Your task to perform on an android device: open app "Messenger Lite" (install if not already installed) and enter user name: "cataclysmic@outlook.com" and password: "victoriously" Image 0: 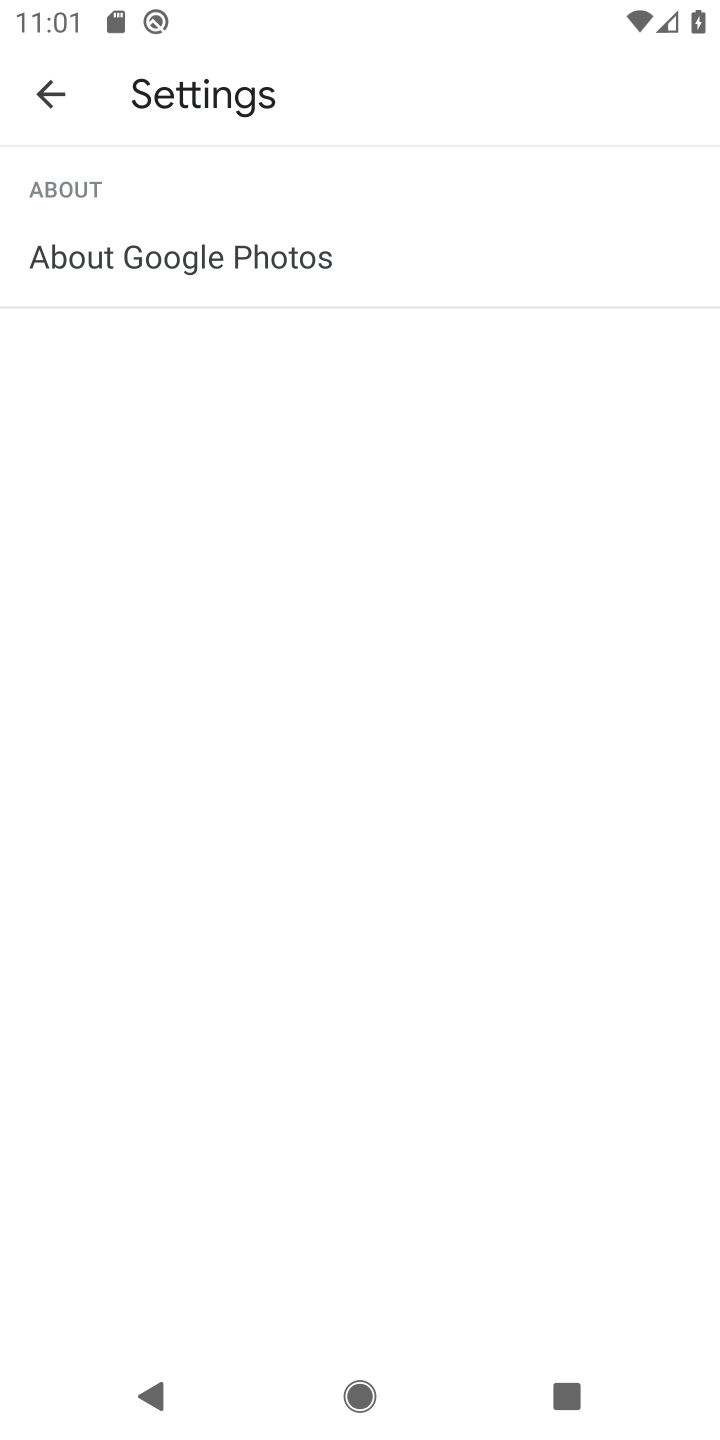
Step 0: press home button
Your task to perform on an android device: open app "Messenger Lite" (install if not already installed) and enter user name: "cataclysmic@outlook.com" and password: "victoriously" Image 1: 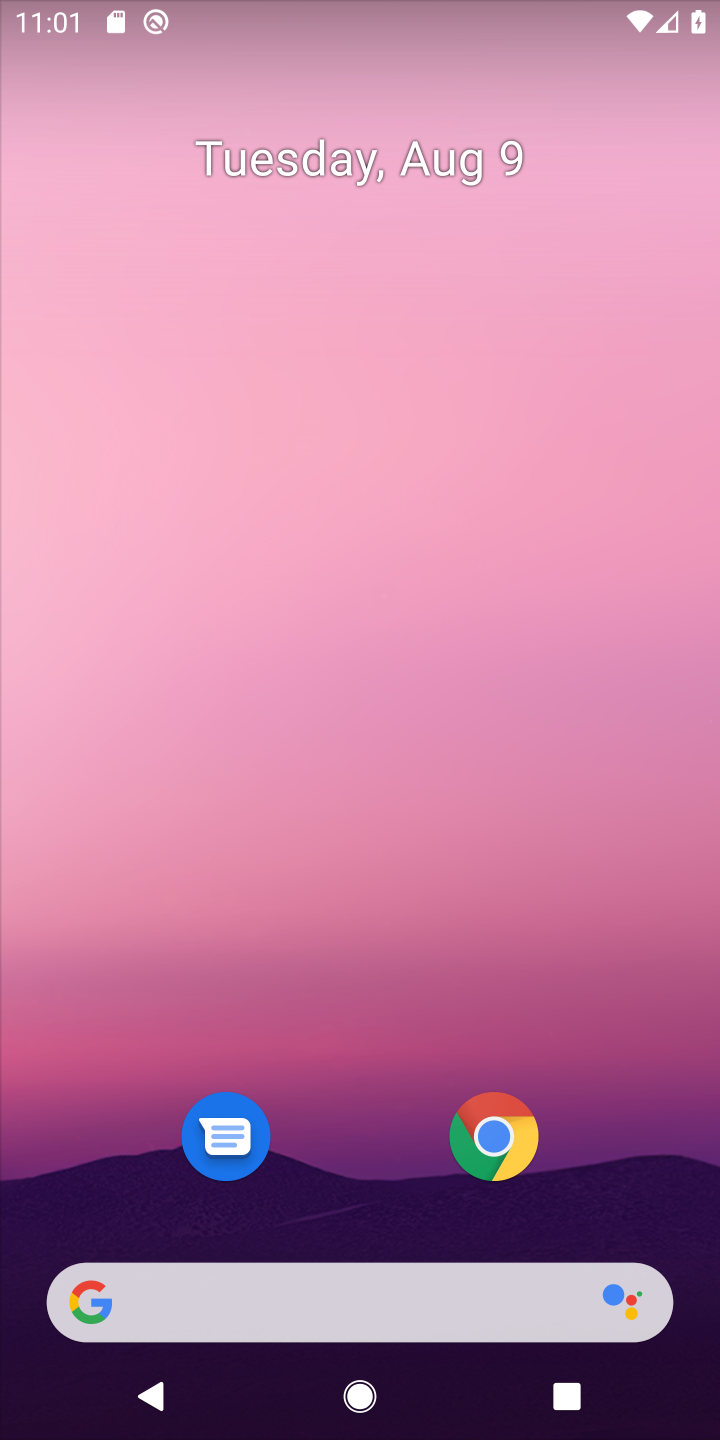
Step 1: drag from (321, 1199) to (346, 527)
Your task to perform on an android device: open app "Messenger Lite" (install if not already installed) and enter user name: "cataclysmic@outlook.com" and password: "victoriously" Image 2: 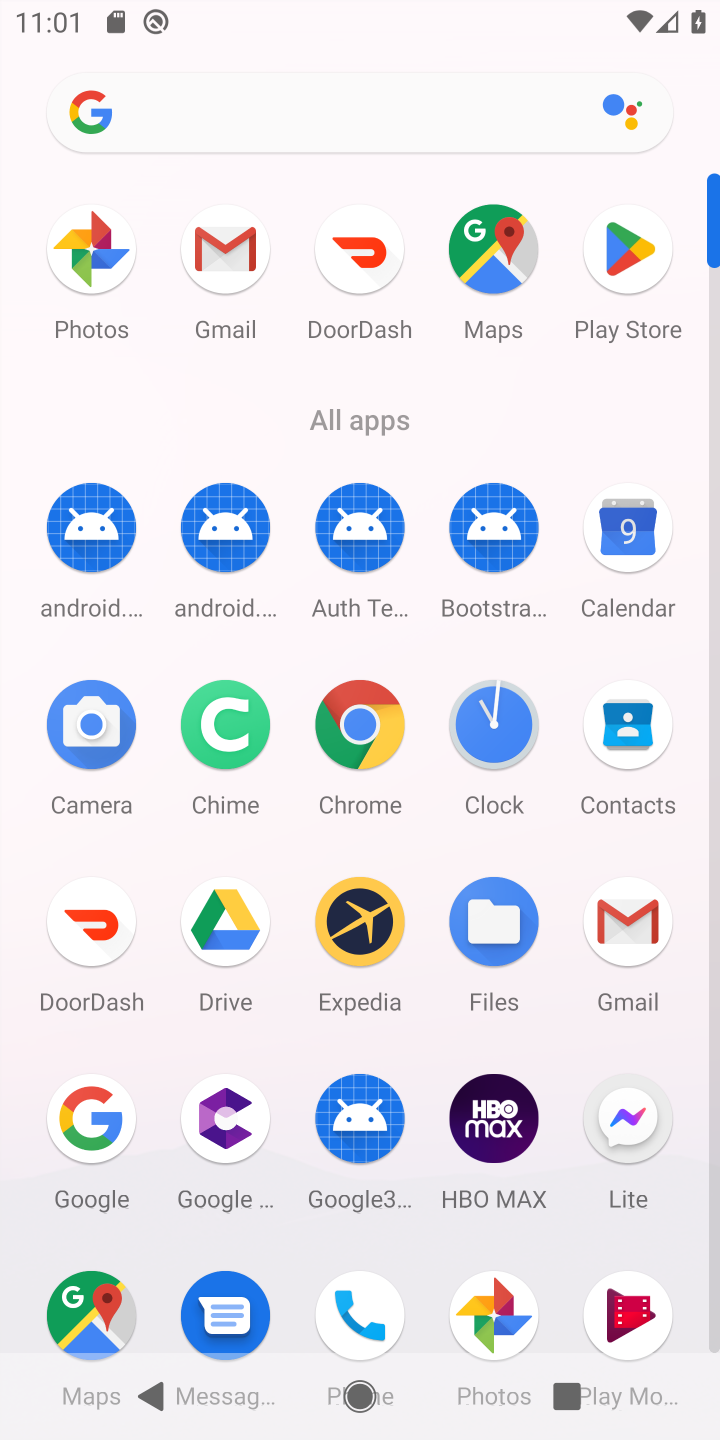
Step 2: click (652, 284)
Your task to perform on an android device: open app "Messenger Lite" (install if not already installed) and enter user name: "cataclysmic@outlook.com" and password: "victoriously" Image 3: 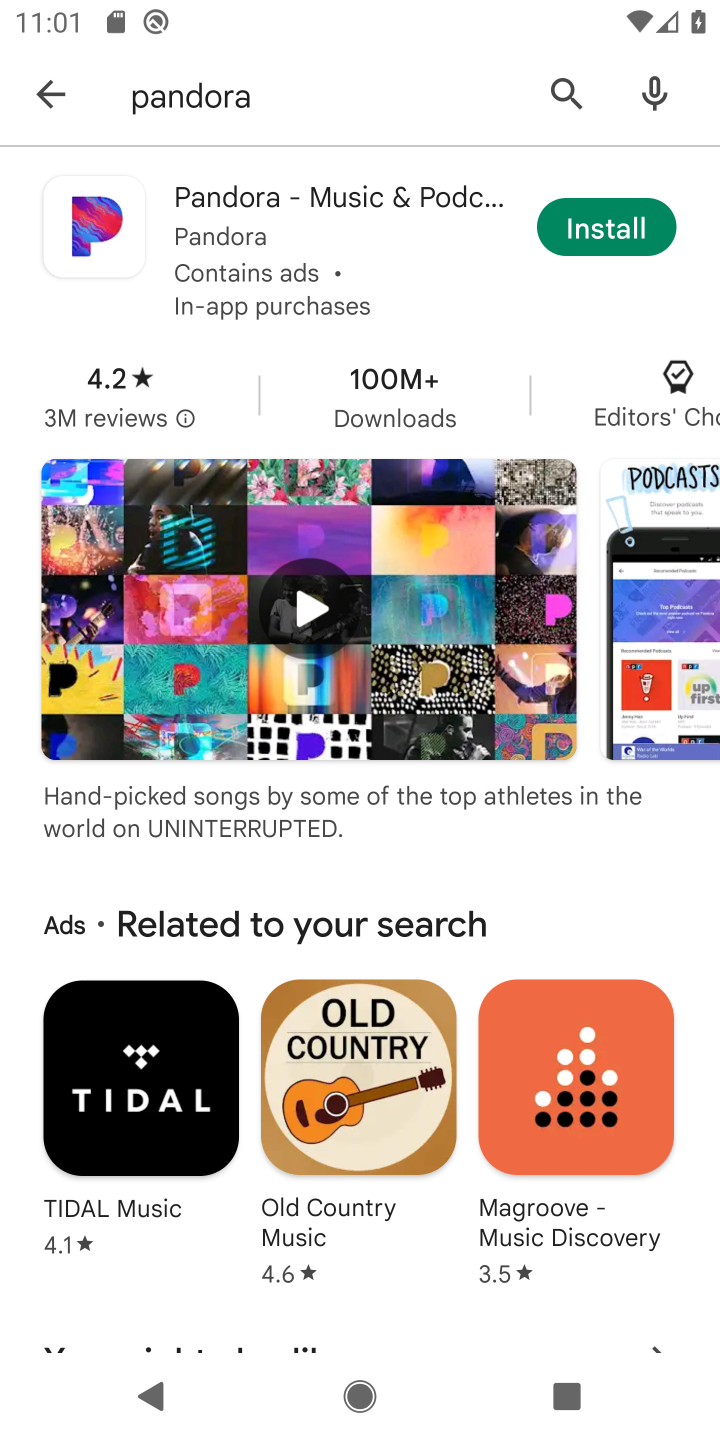
Step 3: click (283, 110)
Your task to perform on an android device: open app "Messenger Lite" (install if not already installed) and enter user name: "cataclysmic@outlook.com" and password: "victoriously" Image 4: 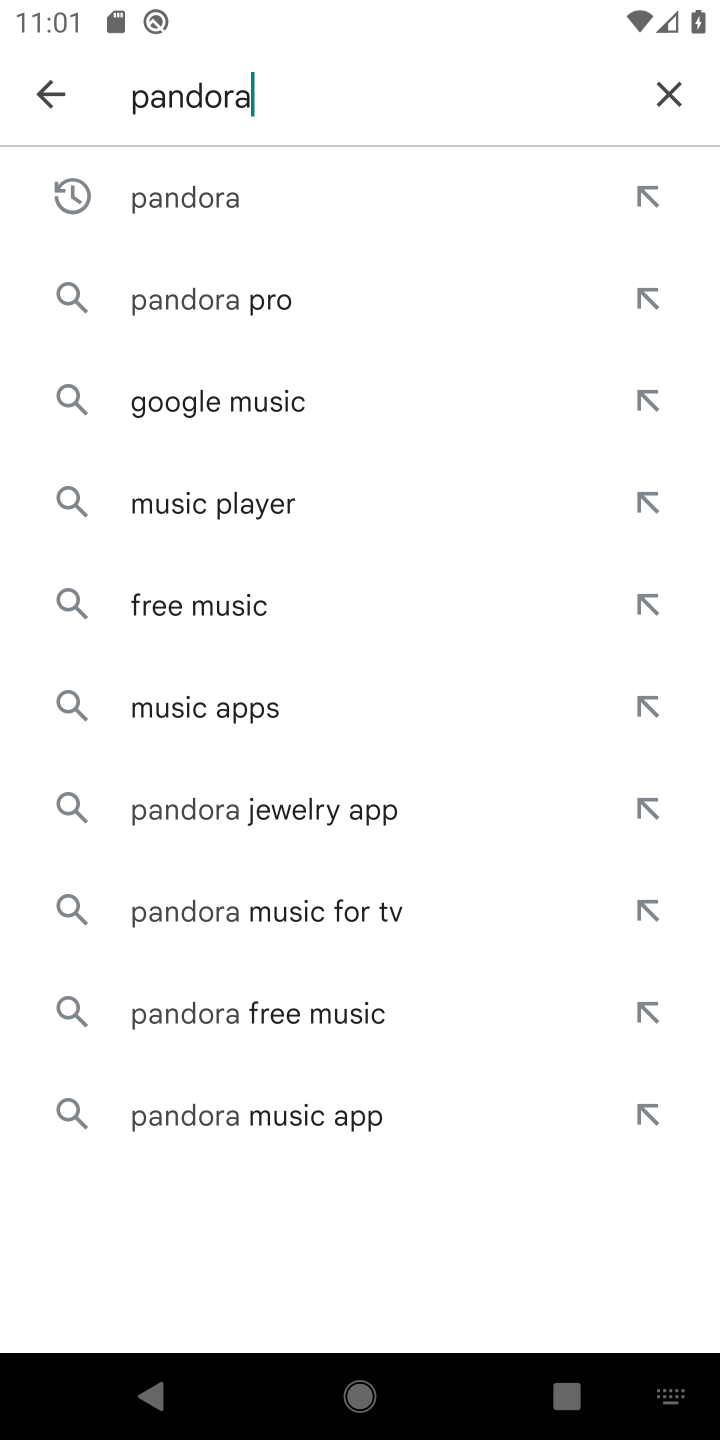
Step 4: click (663, 100)
Your task to perform on an android device: open app "Messenger Lite" (install if not already installed) and enter user name: "cataclysmic@outlook.com" and password: "victoriously" Image 5: 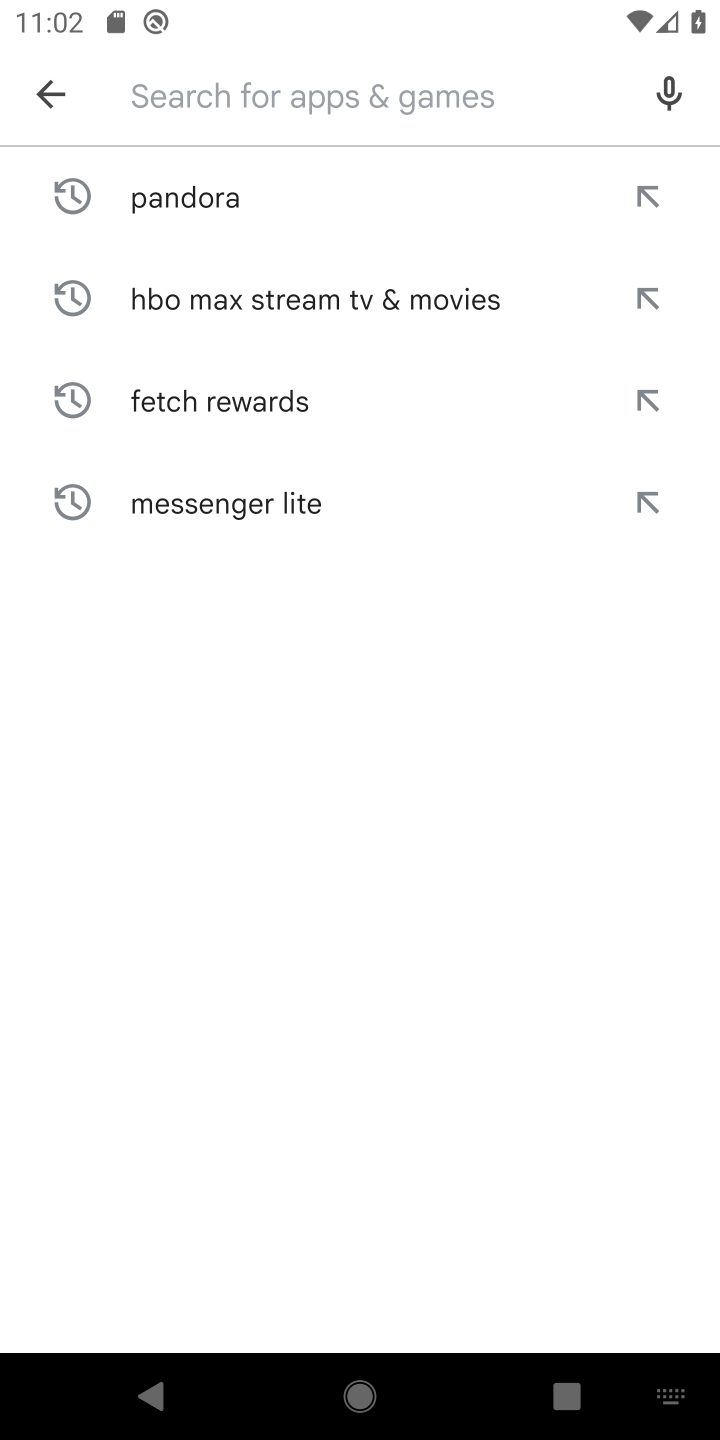
Step 5: type "messenger lite"
Your task to perform on an android device: open app "Messenger Lite" (install if not already installed) and enter user name: "cataclysmic@outlook.com" and password: "victoriously" Image 6: 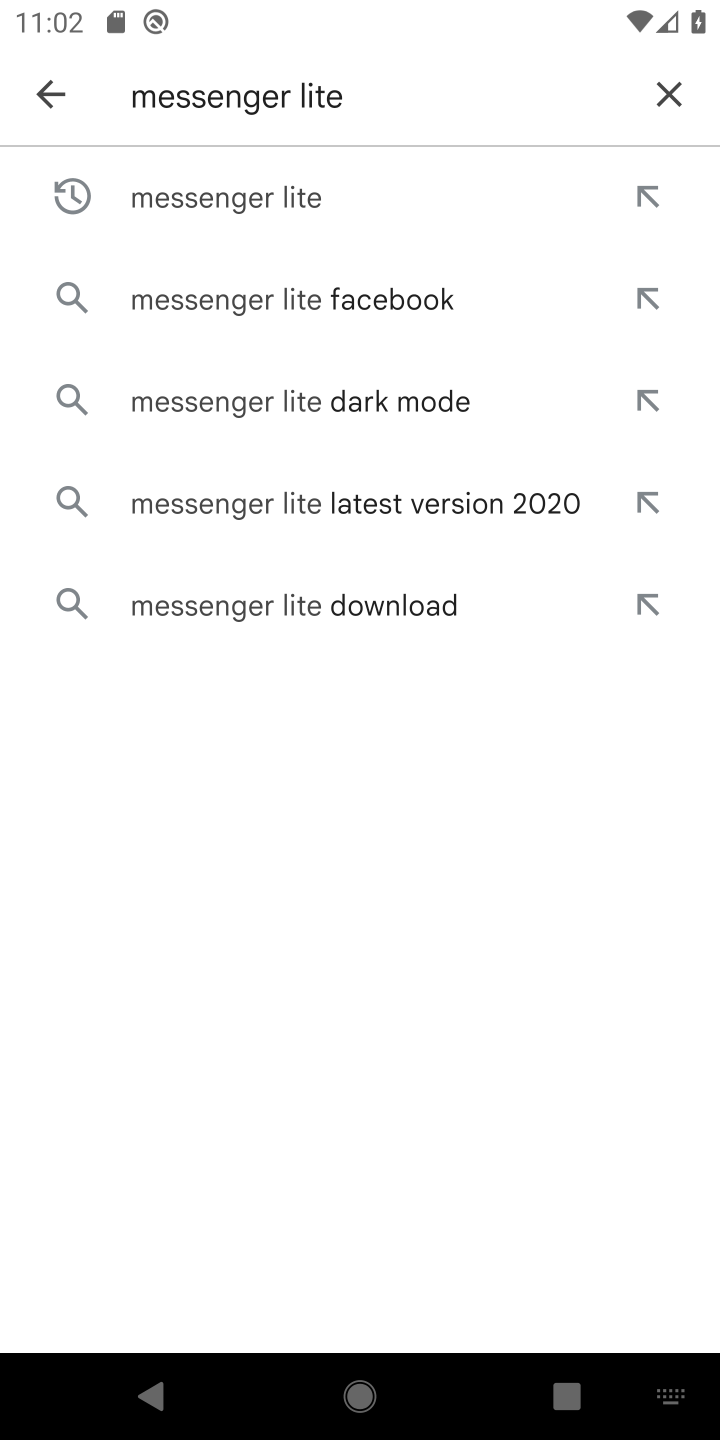
Step 6: click (213, 218)
Your task to perform on an android device: open app "Messenger Lite" (install if not already installed) and enter user name: "cataclysmic@outlook.com" and password: "victoriously" Image 7: 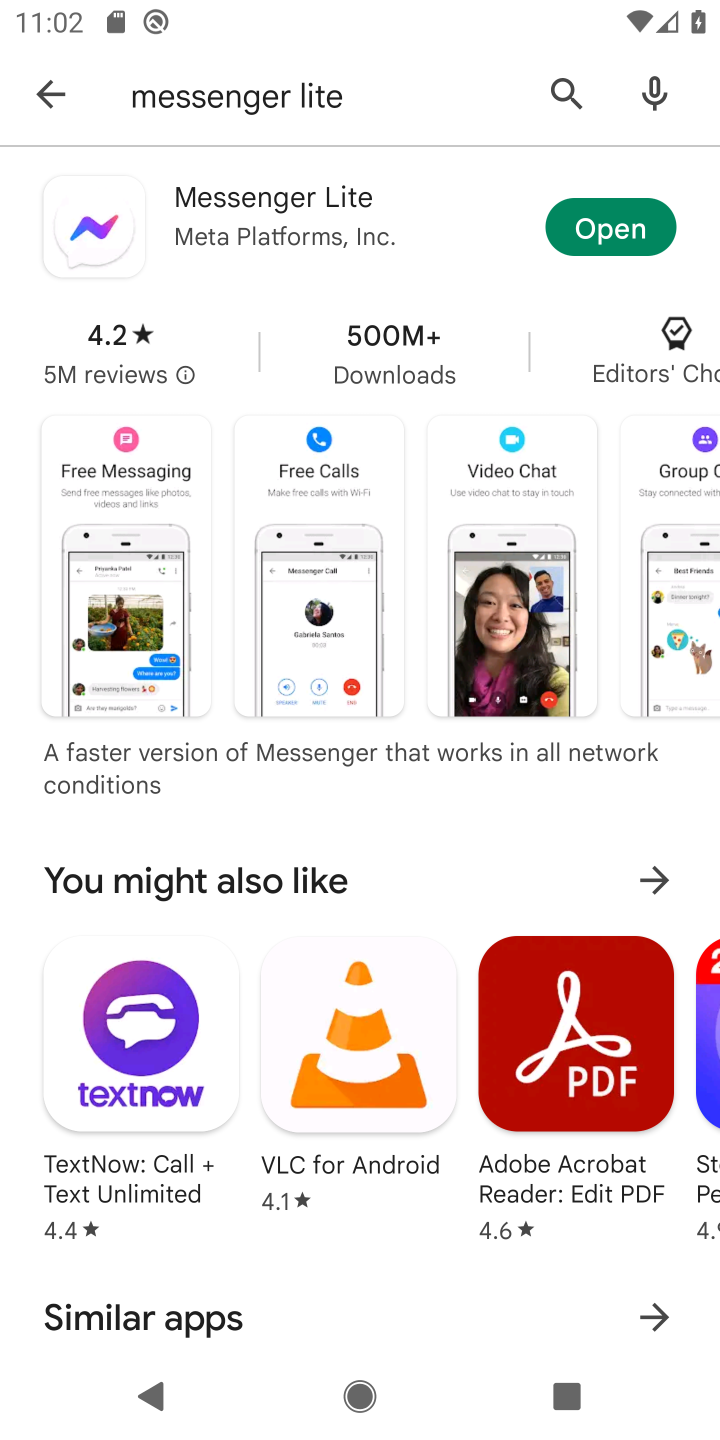
Step 7: click (611, 227)
Your task to perform on an android device: open app "Messenger Lite" (install if not already installed) and enter user name: "cataclysmic@outlook.com" and password: "victoriously" Image 8: 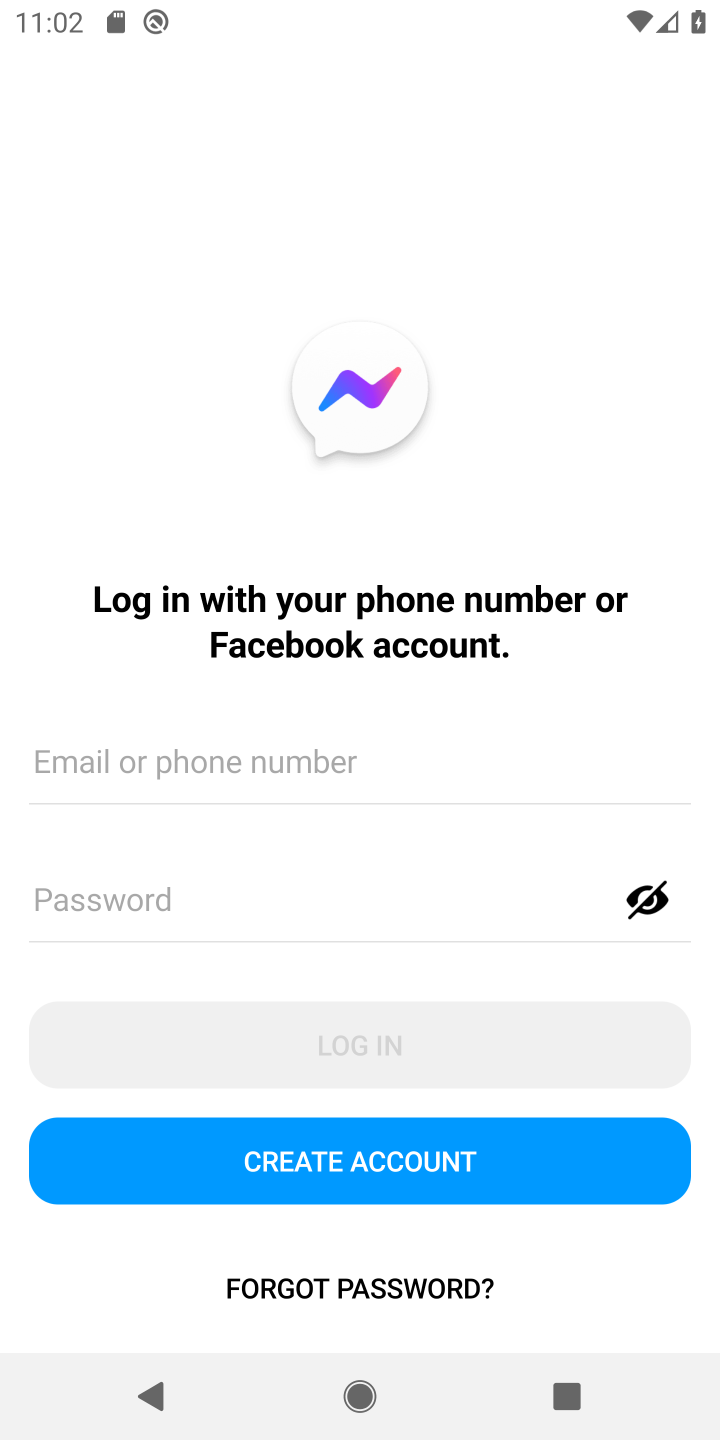
Step 8: click (312, 759)
Your task to perform on an android device: open app "Messenger Lite" (install if not already installed) and enter user name: "cataclysmic@outlook.com" and password: "victoriously" Image 9: 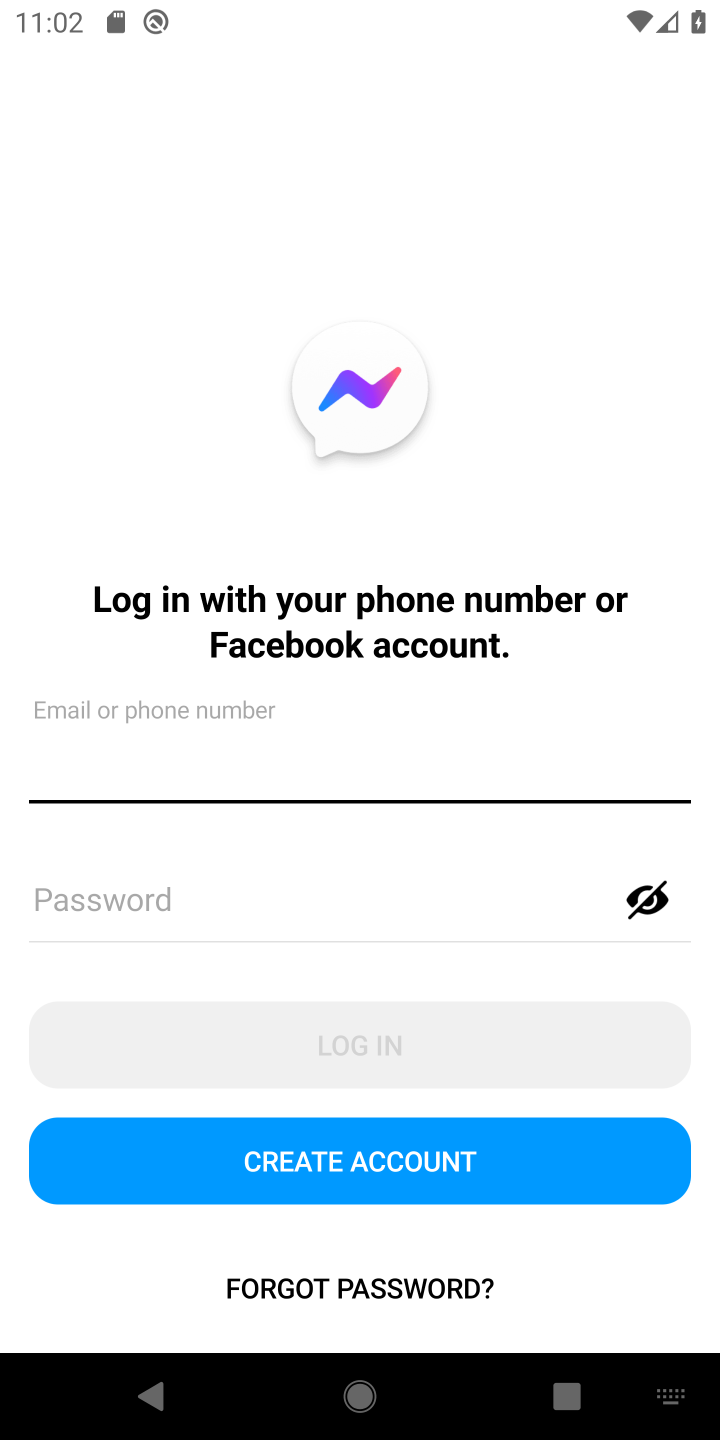
Step 9: type "cataclysmic@outlook.com"
Your task to perform on an android device: open app "Messenger Lite" (install if not already installed) and enter user name: "cataclysmic@outlook.com" and password: "victoriously" Image 10: 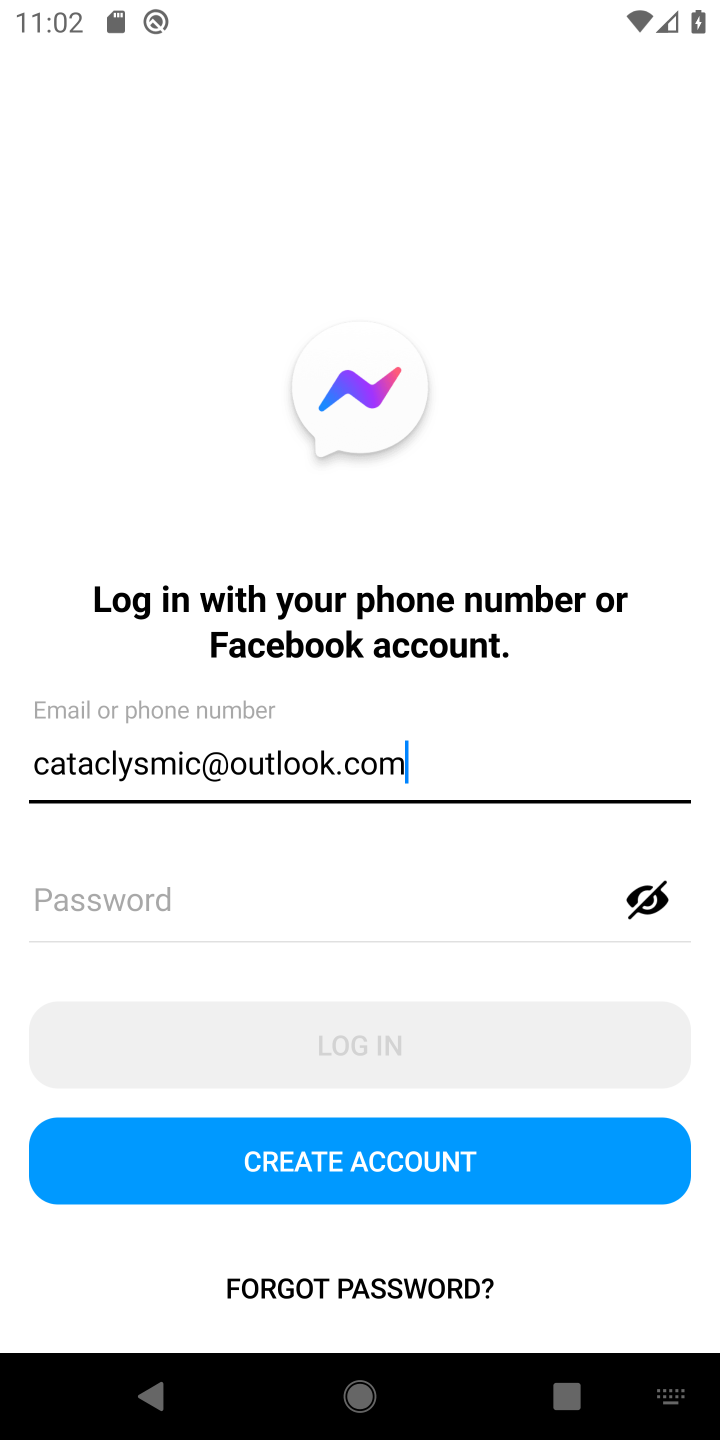
Step 10: click (244, 1028)
Your task to perform on an android device: open app "Messenger Lite" (install if not already installed) and enter user name: "cataclysmic@outlook.com" and password: "victoriously" Image 11: 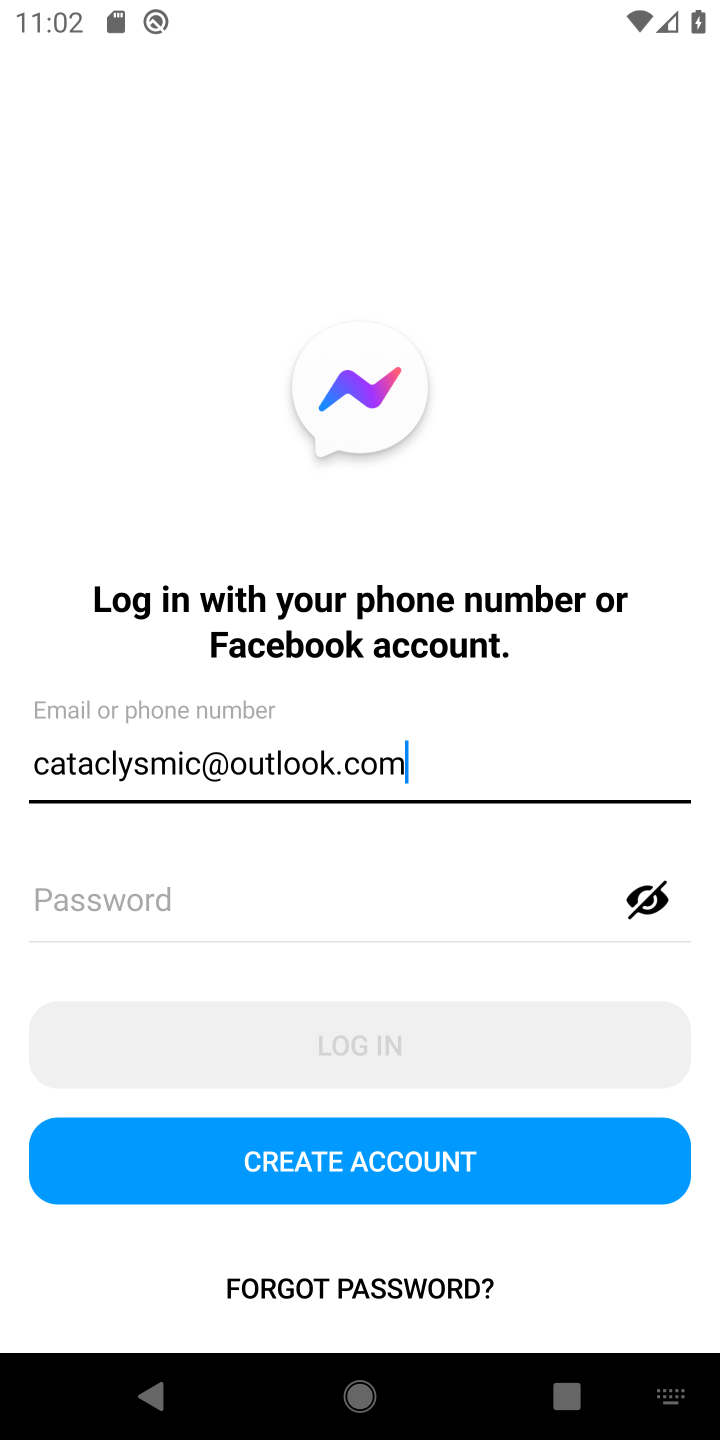
Step 11: click (213, 889)
Your task to perform on an android device: open app "Messenger Lite" (install if not already installed) and enter user name: "cataclysmic@outlook.com" and password: "victoriously" Image 12: 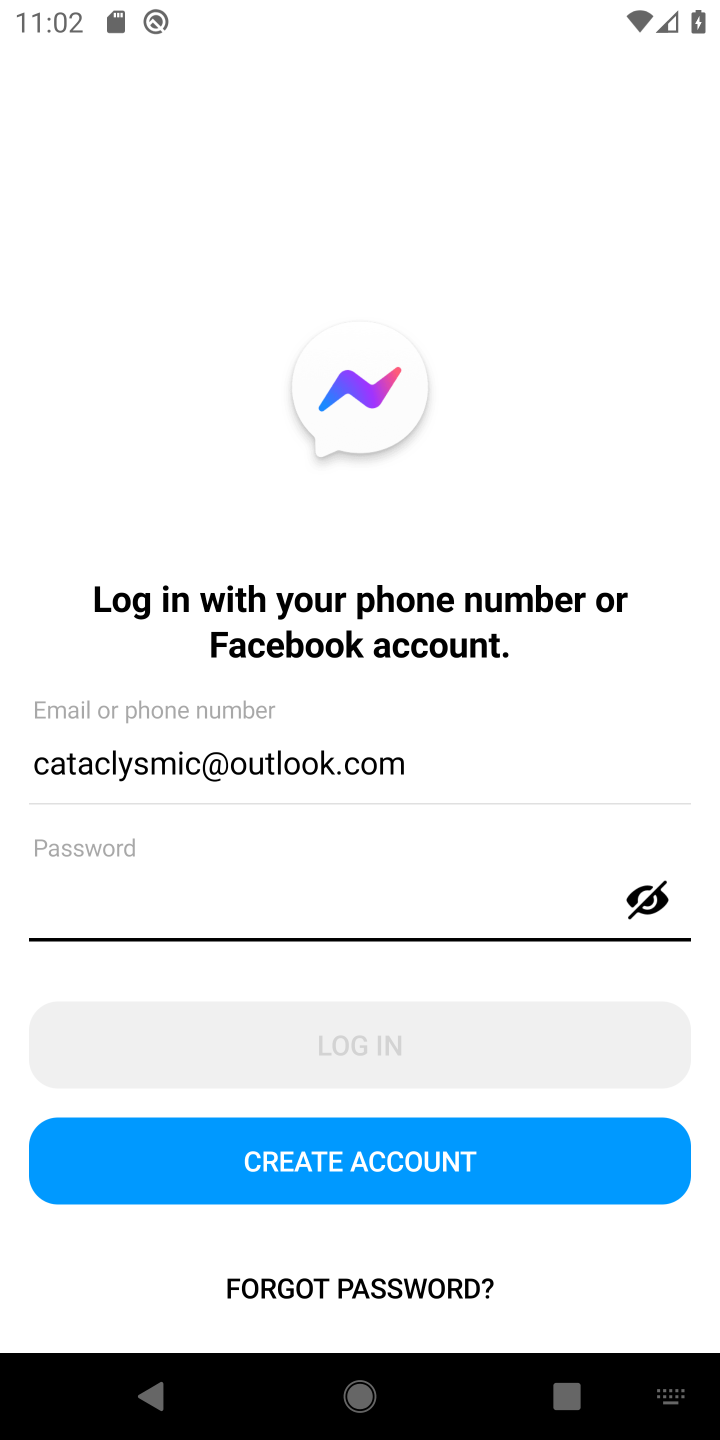
Step 12: type "victoriously"
Your task to perform on an android device: open app "Messenger Lite" (install if not already installed) and enter user name: "cataclysmic@outlook.com" and password: "victoriously" Image 13: 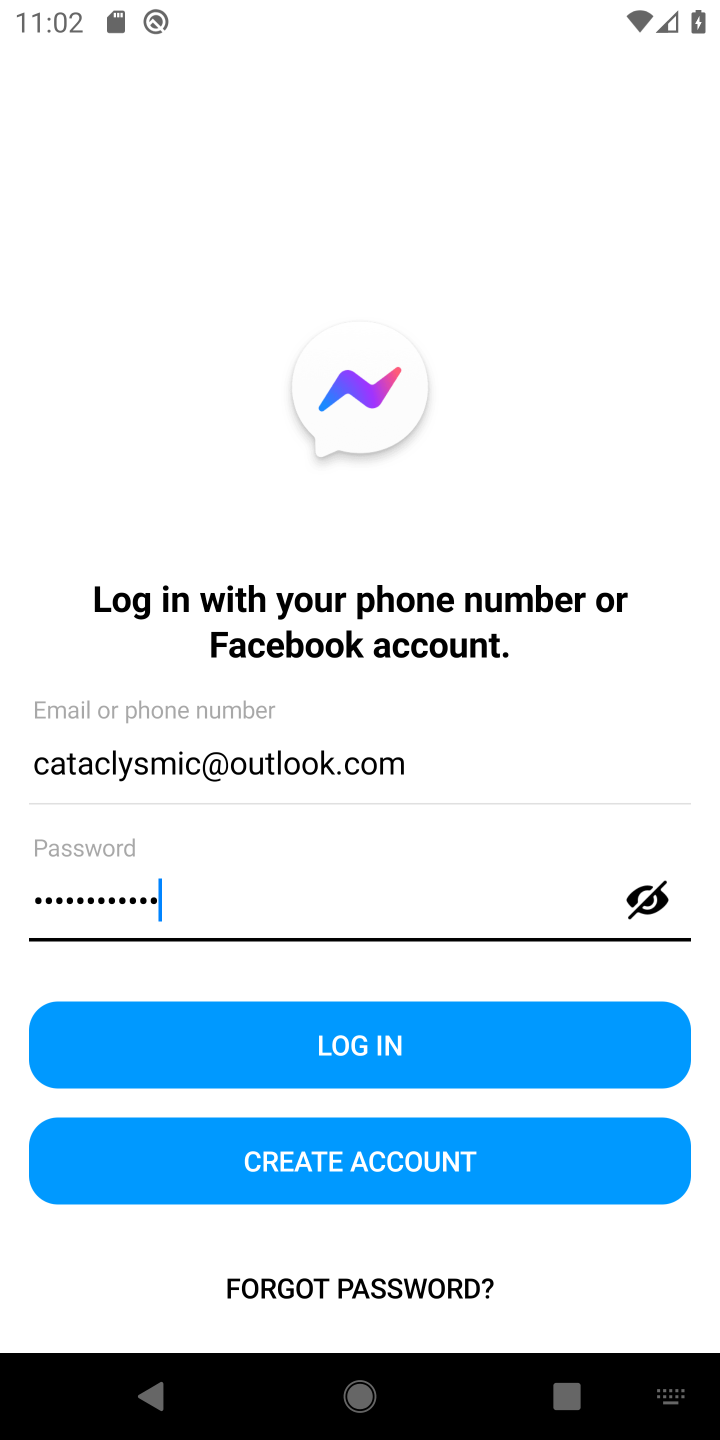
Step 13: click (476, 1038)
Your task to perform on an android device: open app "Messenger Lite" (install if not already installed) and enter user name: "cataclysmic@outlook.com" and password: "victoriously" Image 14: 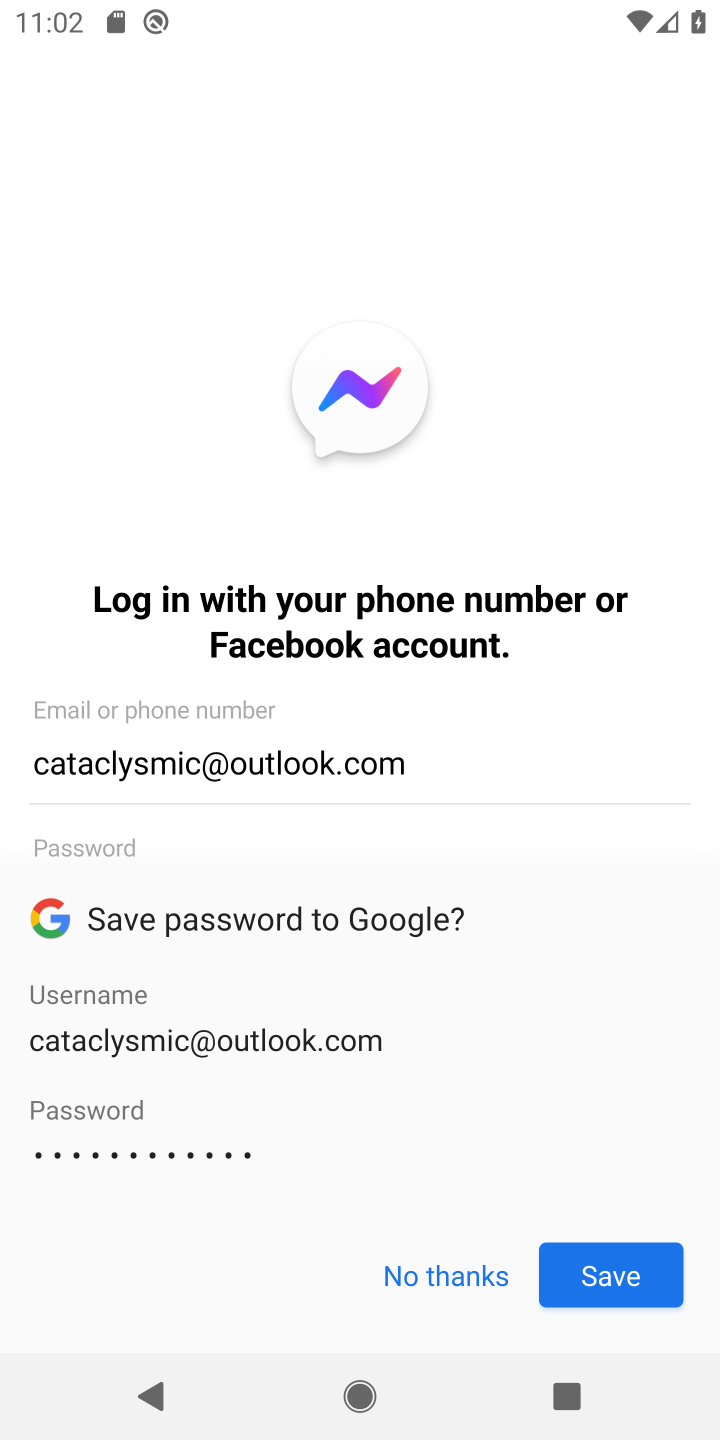
Step 14: click (380, 1262)
Your task to perform on an android device: open app "Messenger Lite" (install if not already installed) and enter user name: "cataclysmic@outlook.com" and password: "victoriously" Image 15: 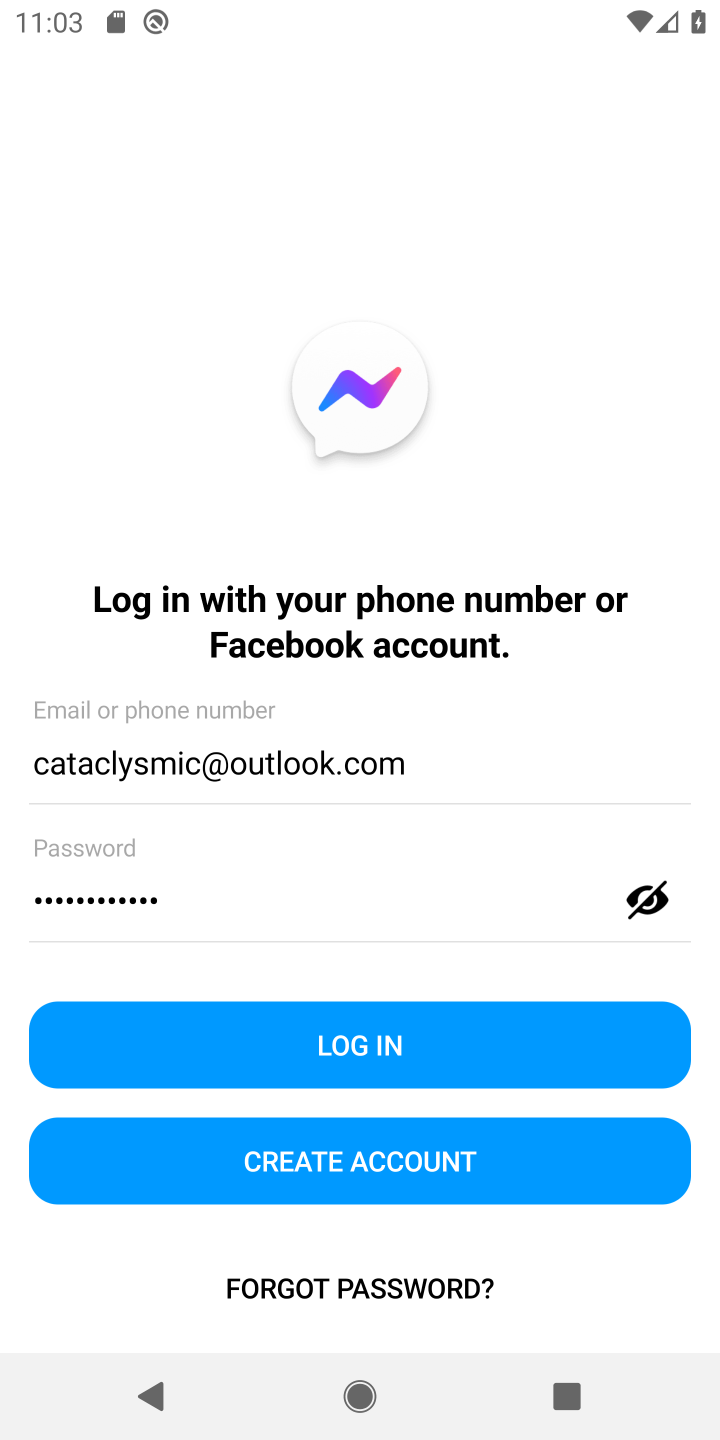
Step 15: click (524, 1032)
Your task to perform on an android device: open app "Messenger Lite" (install if not already installed) and enter user name: "cataclysmic@outlook.com" and password: "victoriously" Image 16: 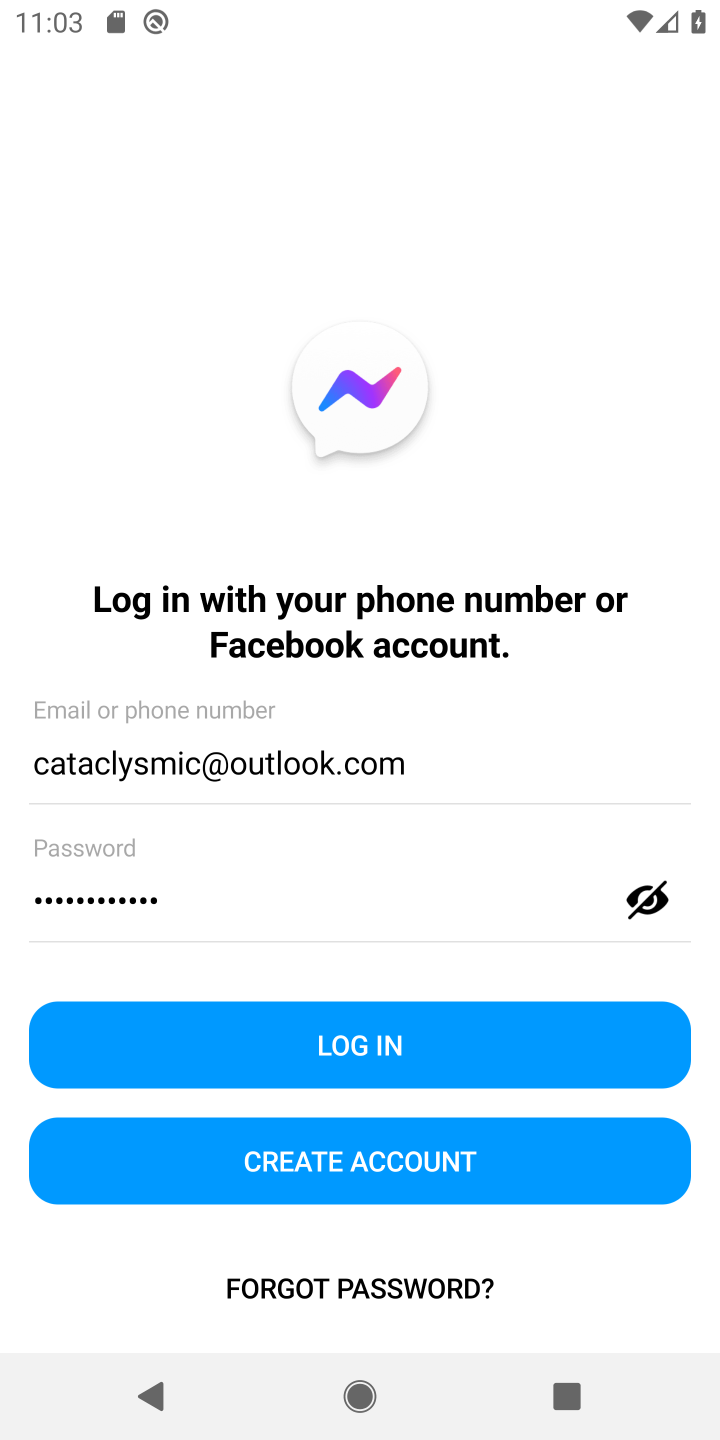
Step 16: task complete